Your task to perform on an android device: turn off location Image 0: 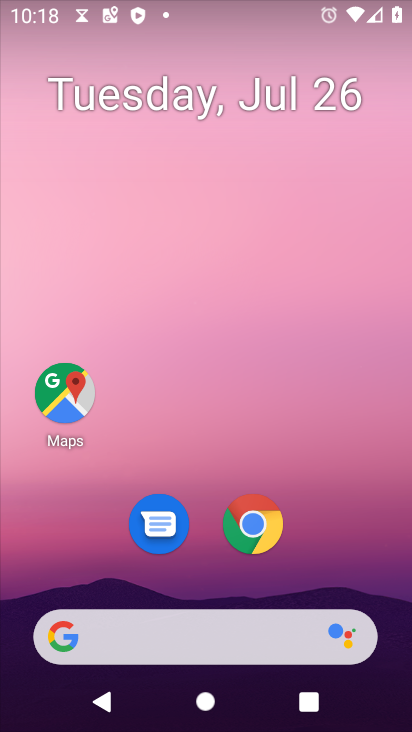
Step 0: press home button
Your task to perform on an android device: turn off location Image 1: 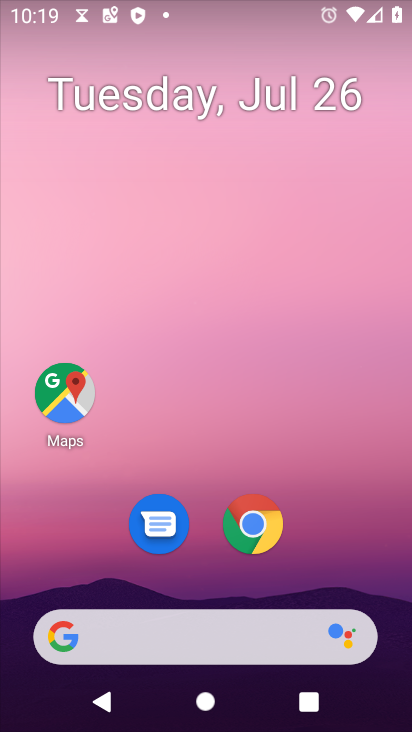
Step 1: drag from (171, 636) to (305, 121)
Your task to perform on an android device: turn off location Image 2: 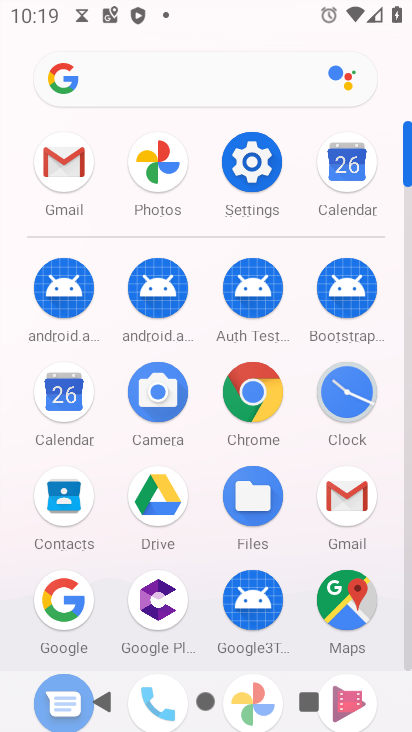
Step 2: click (255, 168)
Your task to perform on an android device: turn off location Image 3: 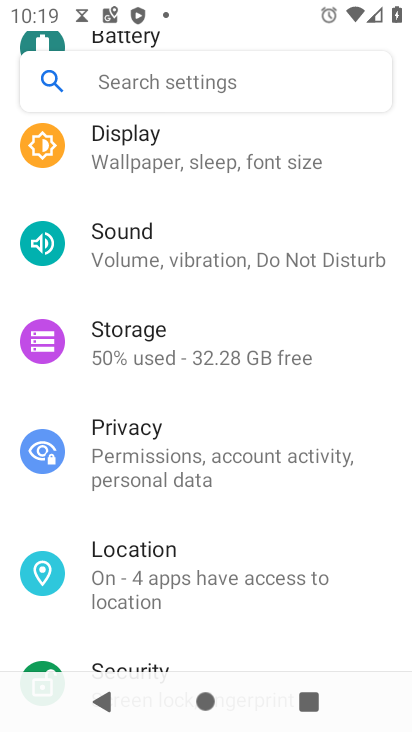
Step 3: click (103, 551)
Your task to perform on an android device: turn off location Image 4: 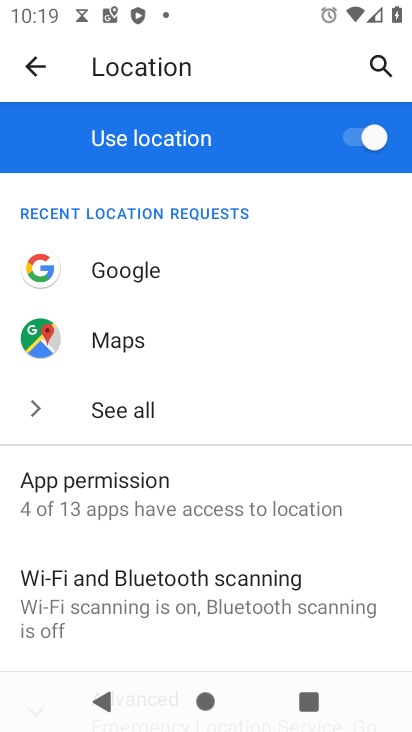
Step 4: drag from (202, 590) to (328, 185)
Your task to perform on an android device: turn off location Image 5: 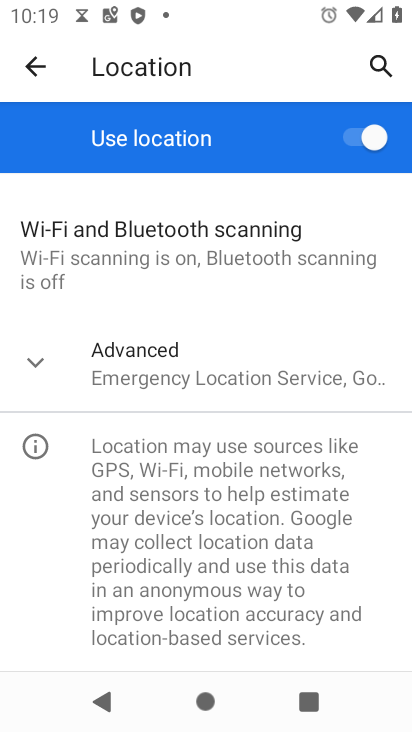
Step 5: click (360, 131)
Your task to perform on an android device: turn off location Image 6: 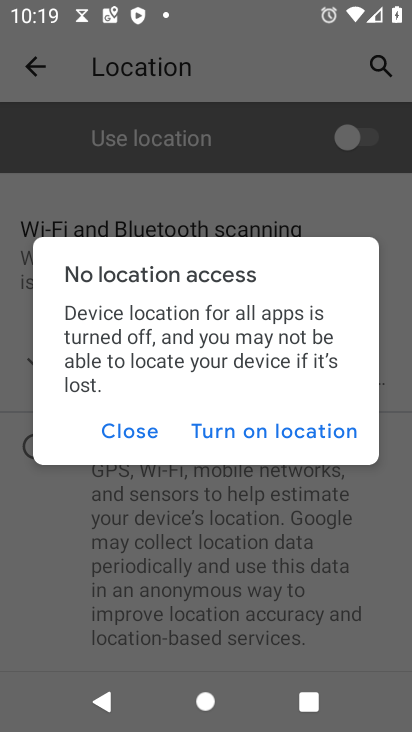
Step 6: click (121, 434)
Your task to perform on an android device: turn off location Image 7: 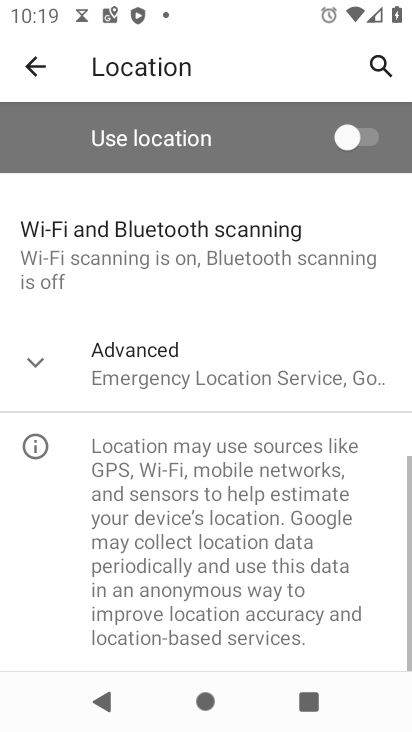
Step 7: task complete